Your task to perform on an android device: Open display settings Image 0: 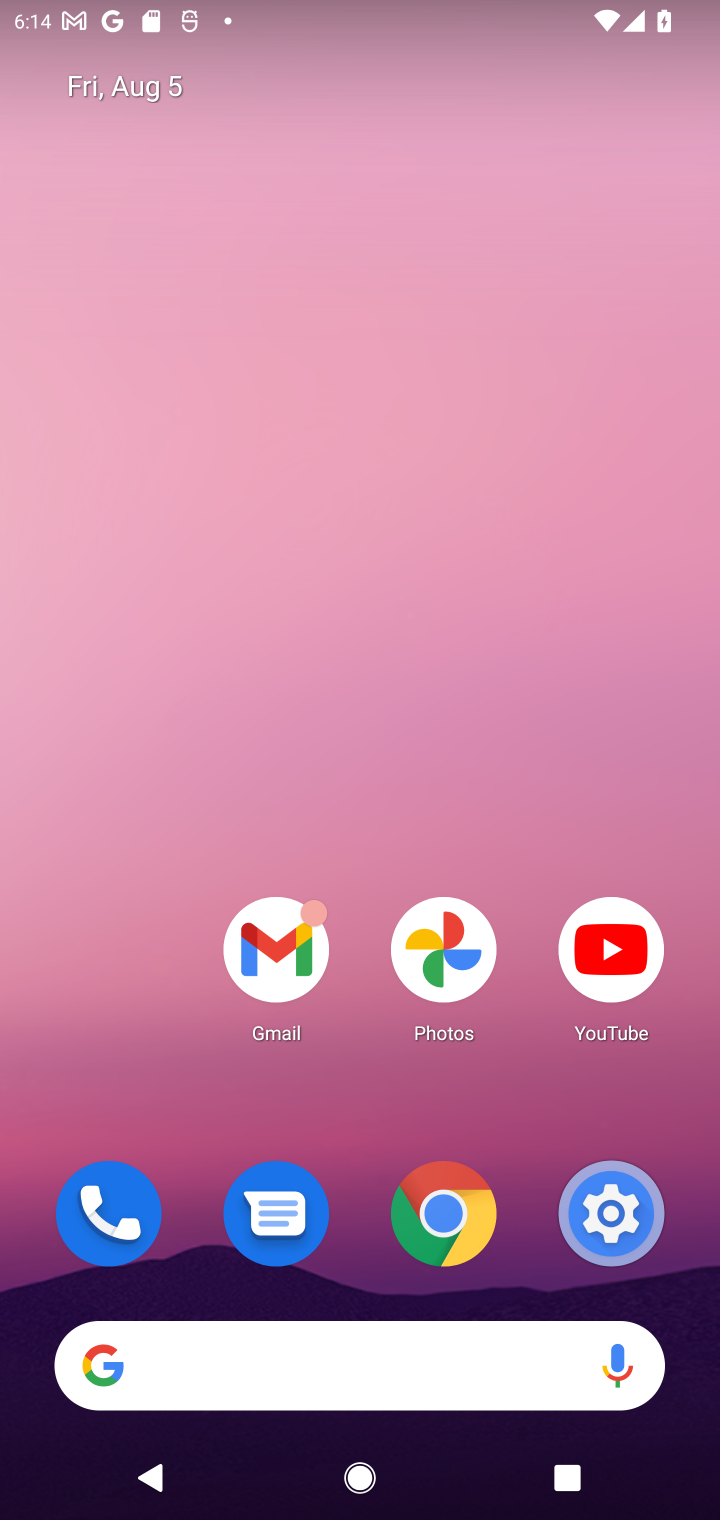
Step 0: click (587, 1239)
Your task to perform on an android device: Open display settings Image 1: 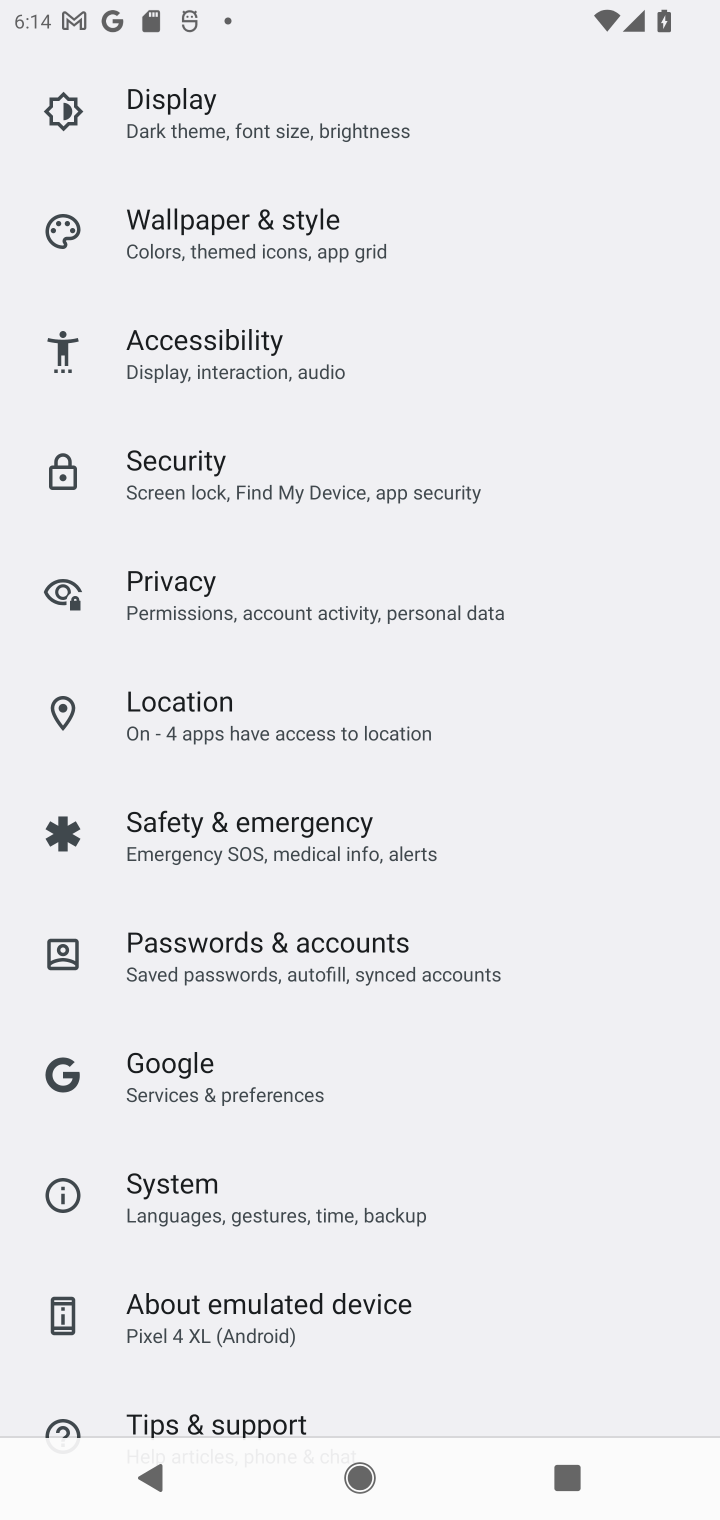
Step 1: click (280, 131)
Your task to perform on an android device: Open display settings Image 2: 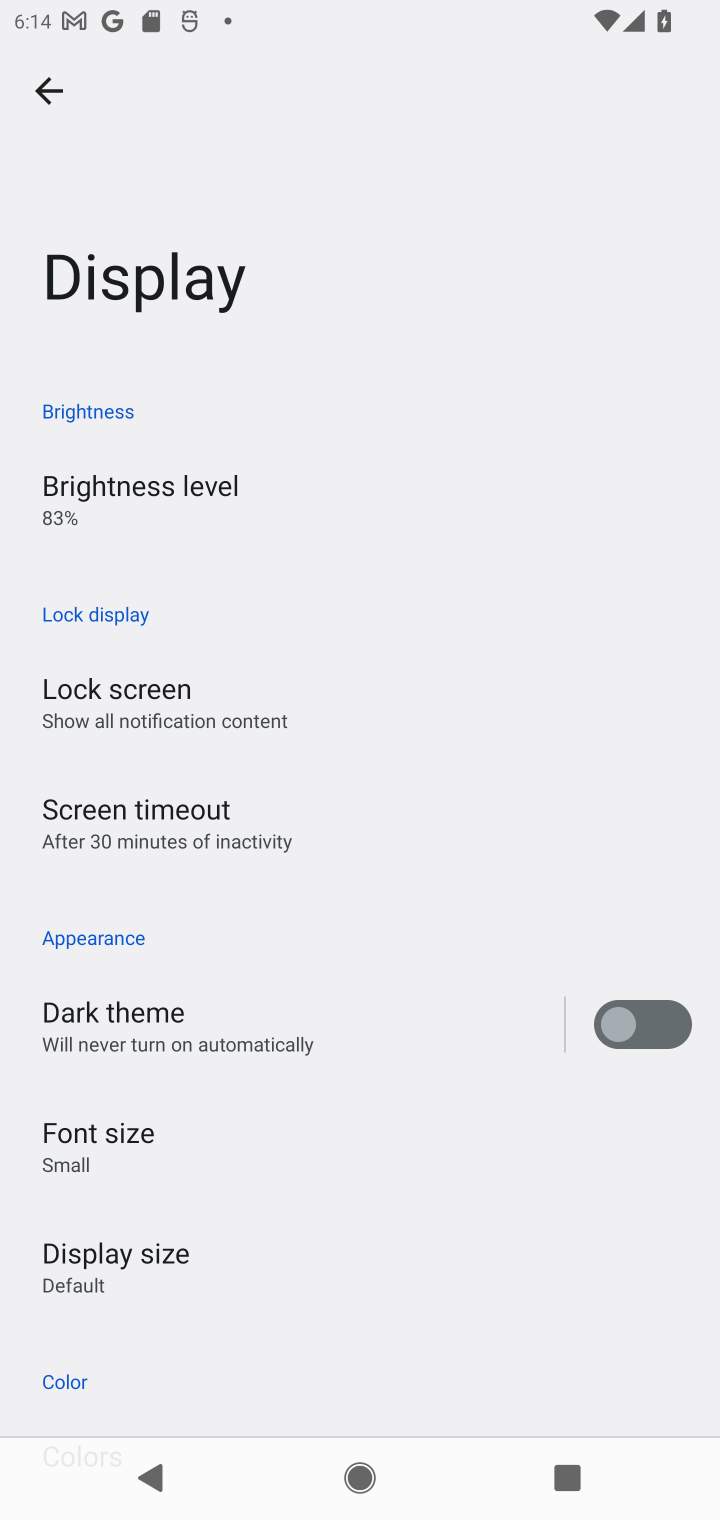
Step 2: task complete